Your task to perform on an android device: Open settings Image 0: 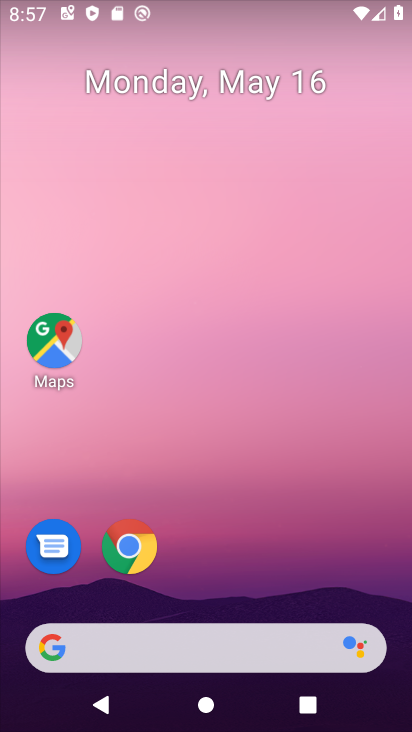
Step 0: drag from (214, 647) to (182, 307)
Your task to perform on an android device: Open settings Image 1: 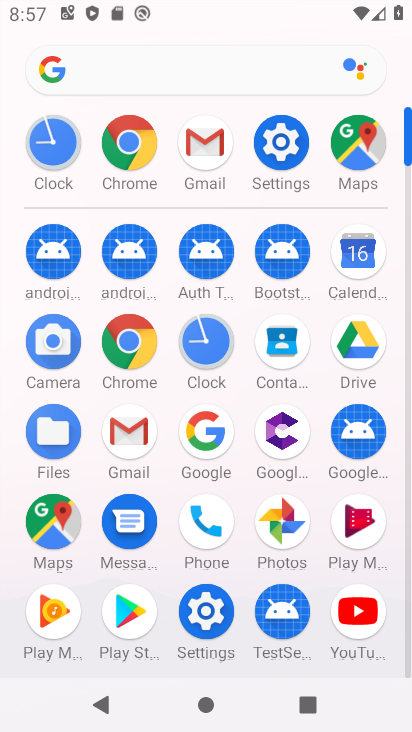
Step 1: click (285, 153)
Your task to perform on an android device: Open settings Image 2: 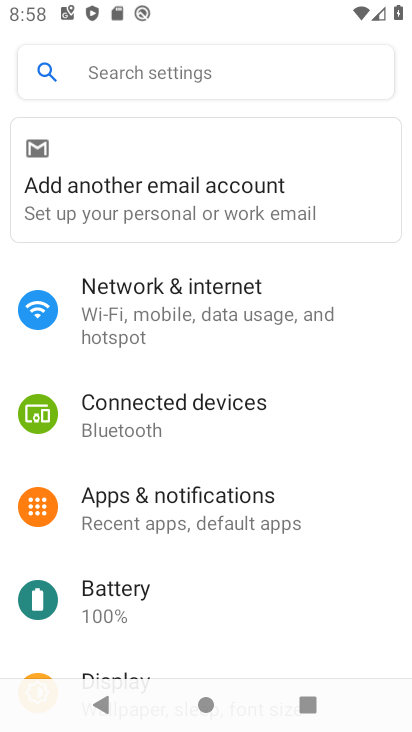
Step 2: task complete